Your task to perform on an android device: Open sound settings Image 0: 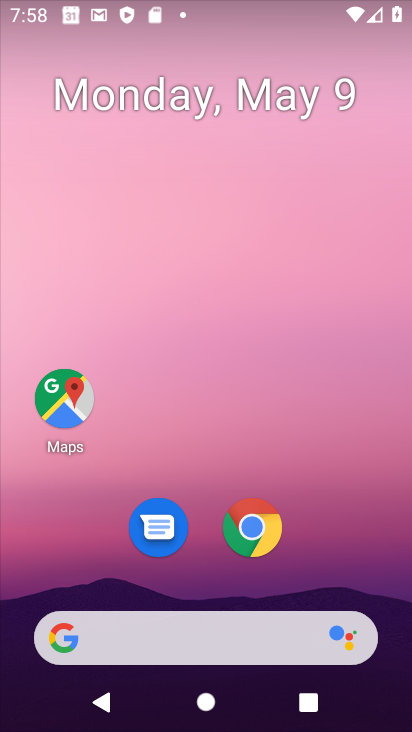
Step 0: drag from (193, 637) to (256, 149)
Your task to perform on an android device: Open sound settings Image 1: 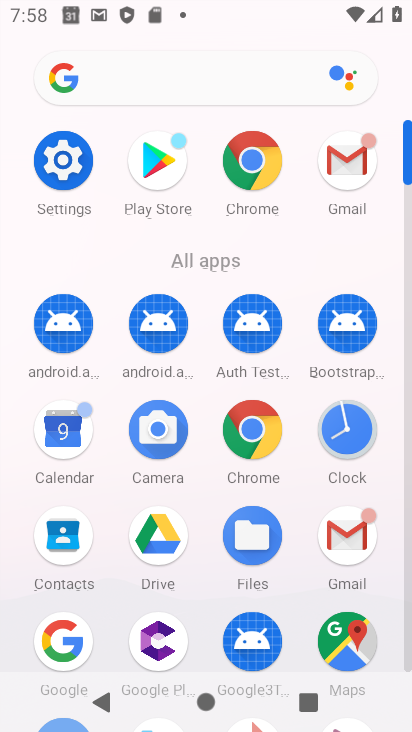
Step 1: click (56, 183)
Your task to perform on an android device: Open sound settings Image 2: 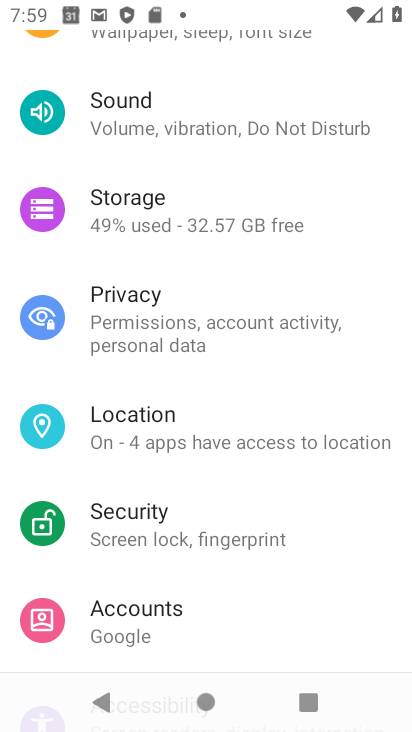
Step 2: drag from (242, 483) to (228, 605)
Your task to perform on an android device: Open sound settings Image 3: 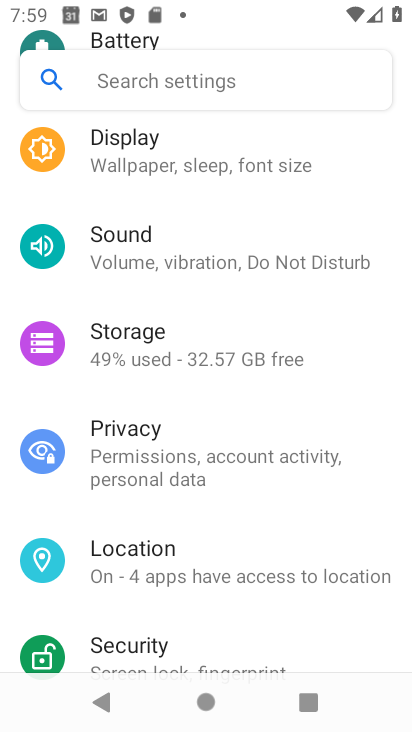
Step 3: click (221, 268)
Your task to perform on an android device: Open sound settings Image 4: 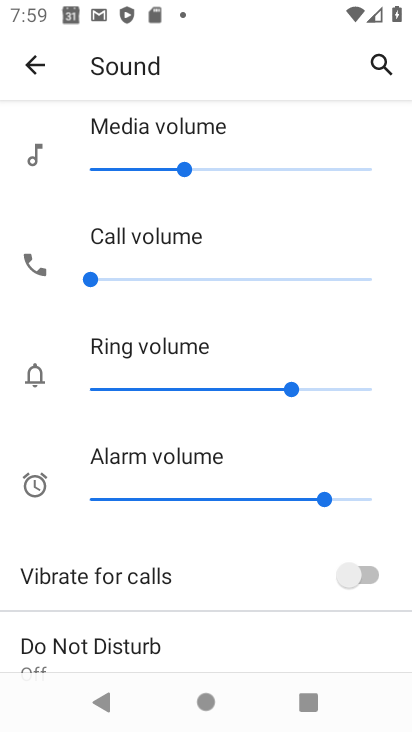
Step 4: task complete